Your task to perform on an android device: manage bookmarks in the chrome app Image 0: 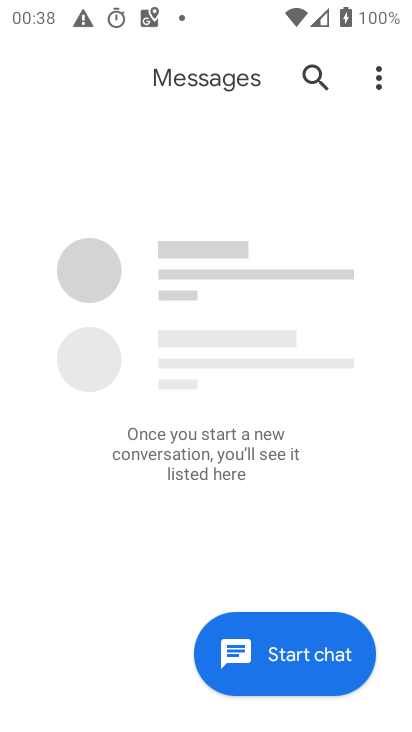
Step 0: press back button
Your task to perform on an android device: manage bookmarks in the chrome app Image 1: 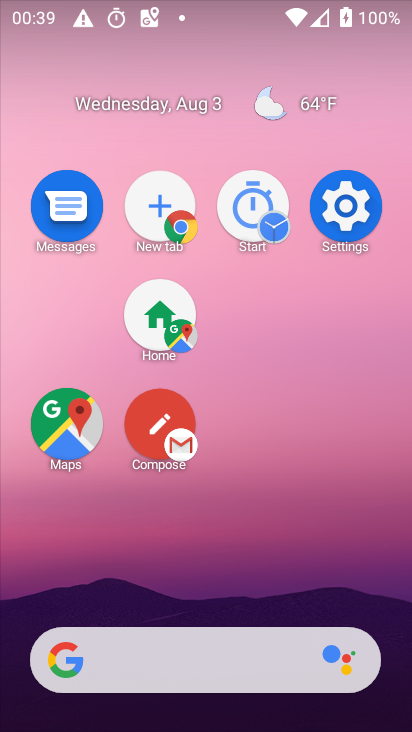
Step 1: drag from (270, 359) to (243, 217)
Your task to perform on an android device: manage bookmarks in the chrome app Image 2: 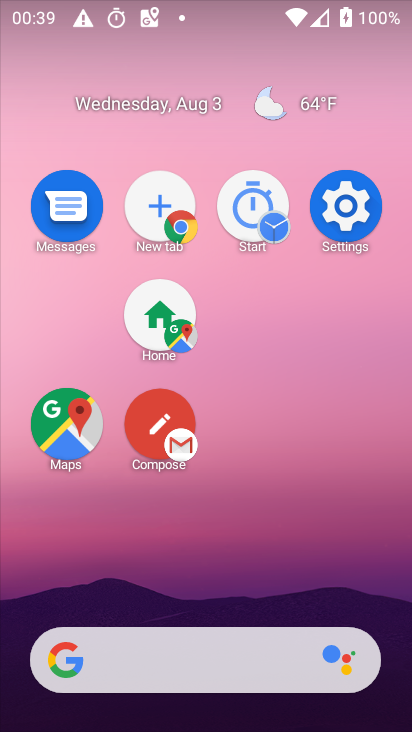
Step 2: drag from (328, 527) to (275, 382)
Your task to perform on an android device: manage bookmarks in the chrome app Image 3: 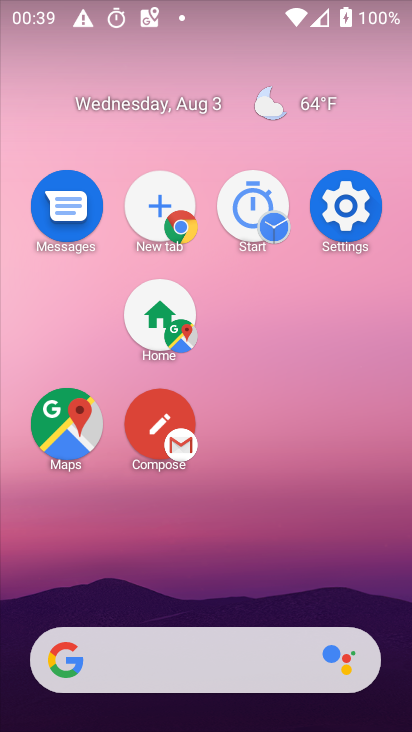
Step 3: drag from (209, 472) to (185, 271)
Your task to perform on an android device: manage bookmarks in the chrome app Image 4: 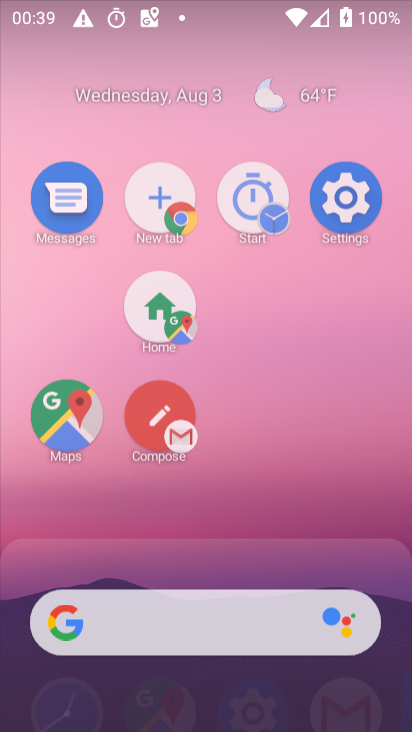
Step 4: drag from (298, 495) to (230, 156)
Your task to perform on an android device: manage bookmarks in the chrome app Image 5: 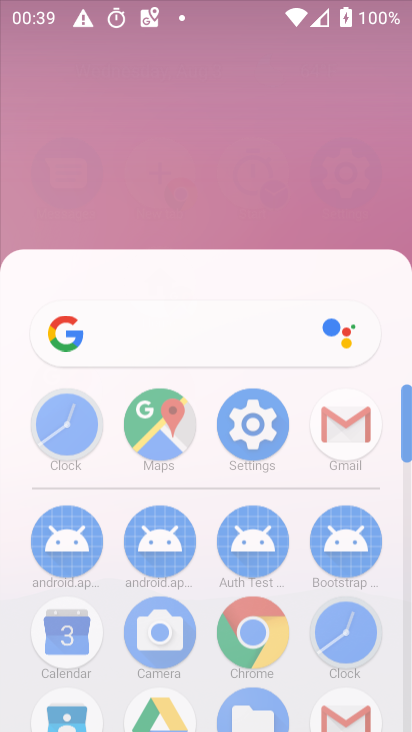
Step 5: drag from (338, 450) to (291, 160)
Your task to perform on an android device: manage bookmarks in the chrome app Image 6: 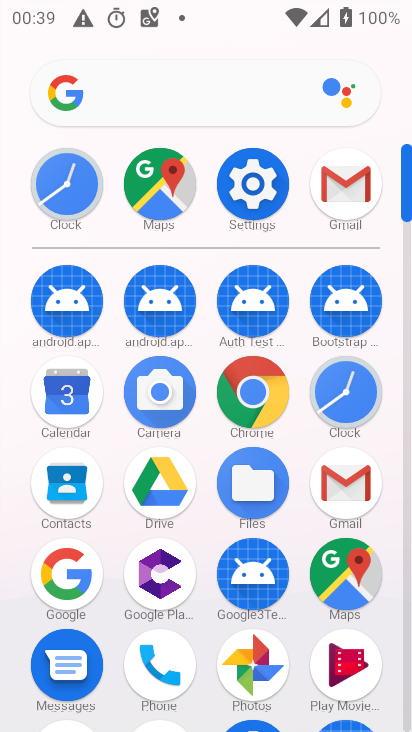
Step 6: click (248, 382)
Your task to perform on an android device: manage bookmarks in the chrome app Image 7: 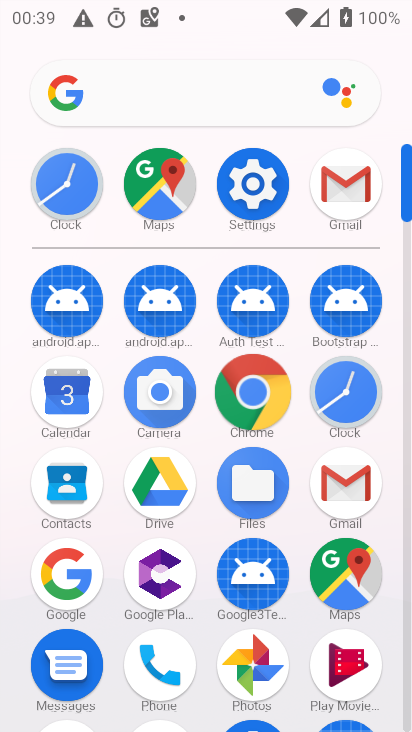
Step 7: click (276, 411)
Your task to perform on an android device: manage bookmarks in the chrome app Image 8: 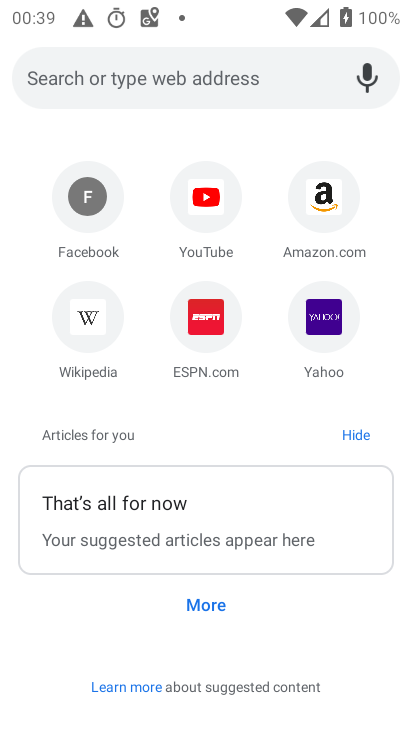
Step 8: drag from (339, 78) to (317, 309)
Your task to perform on an android device: manage bookmarks in the chrome app Image 9: 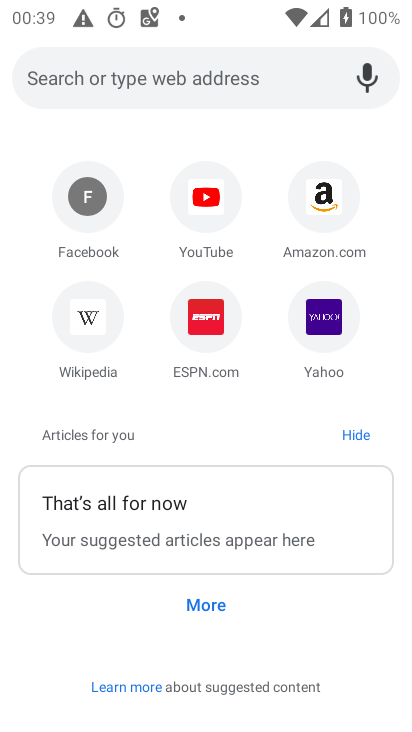
Step 9: click (286, 84)
Your task to perform on an android device: manage bookmarks in the chrome app Image 10: 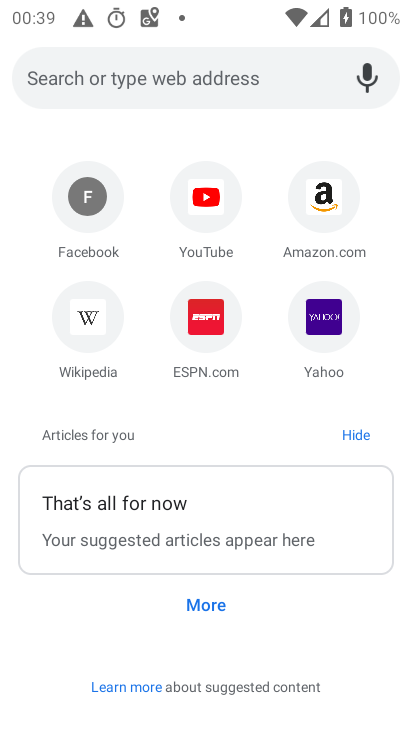
Step 10: click (285, 90)
Your task to perform on an android device: manage bookmarks in the chrome app Image 11: 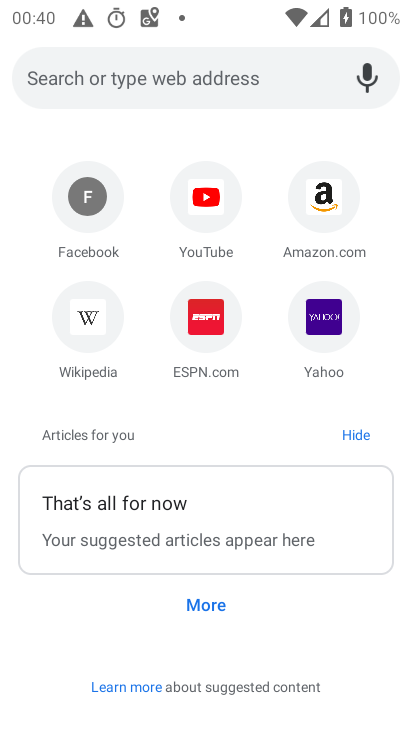
Step 11: press back button
Your task to perform on an android device: manage bookmarks in the chrome app Image 12: 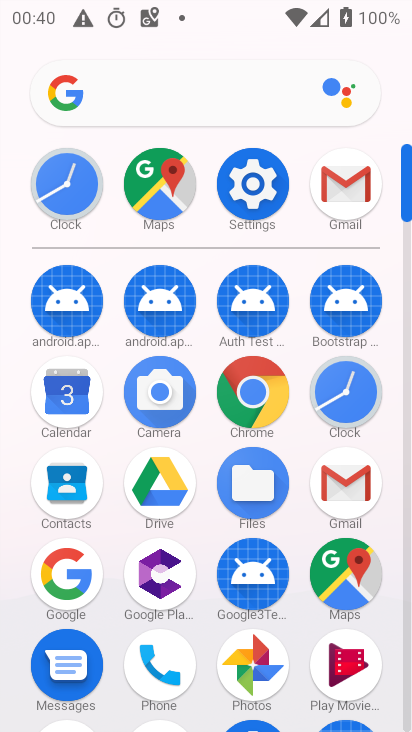
Step 12: click (267, 399)
Your task to perform on an android device: manage bookmarks in the chrome app Image 13: 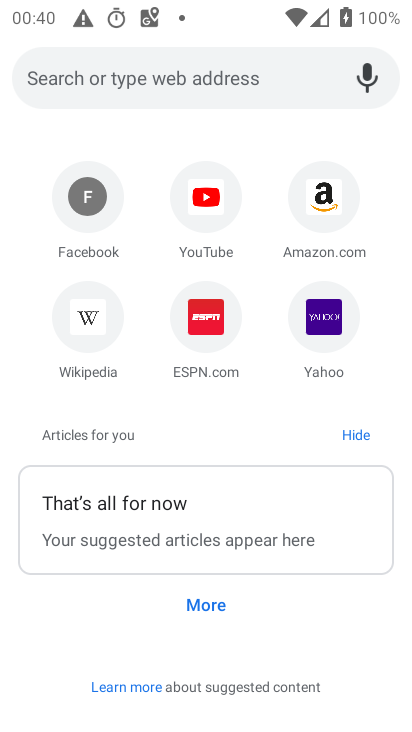
Step 13: press back button
Your task to perform on an android device: manage bookmarks in the chrome app Image 14: 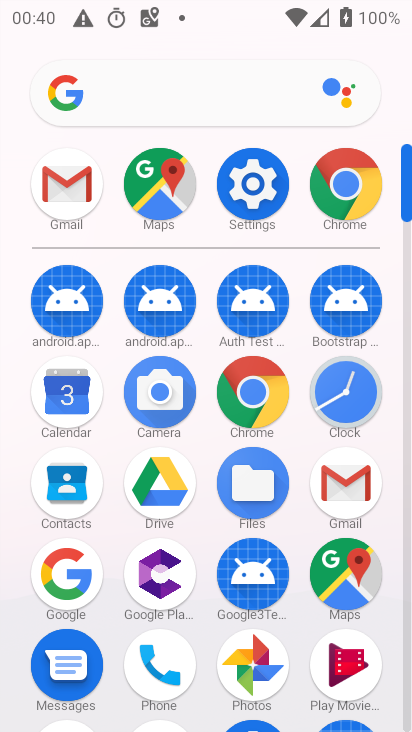
Step 14: click (356, 181)
Your task to perform on an android device: manage bookmarks in the chrome app Image 15: 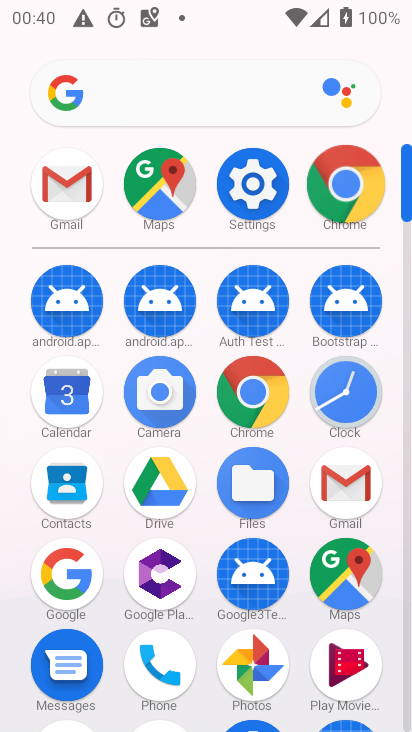
Step 15: click (365, 216)
Your task to perform on an android device: manage bookmarks in the chrome app Image 16: 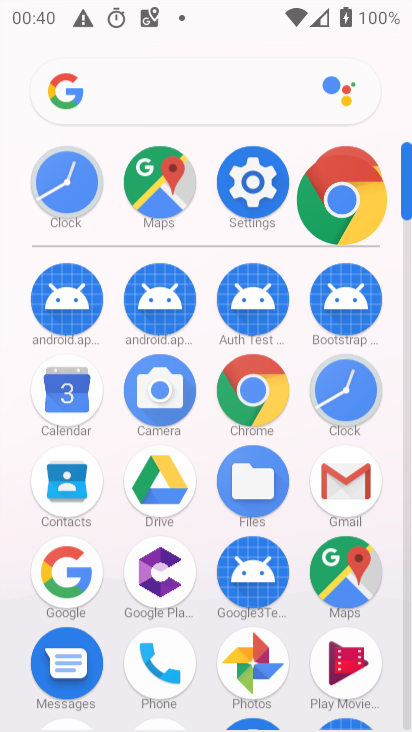
Step 16: click (373, 231)
Your task to perform on an android device: manage bookmarks in the chrome app Image 17: 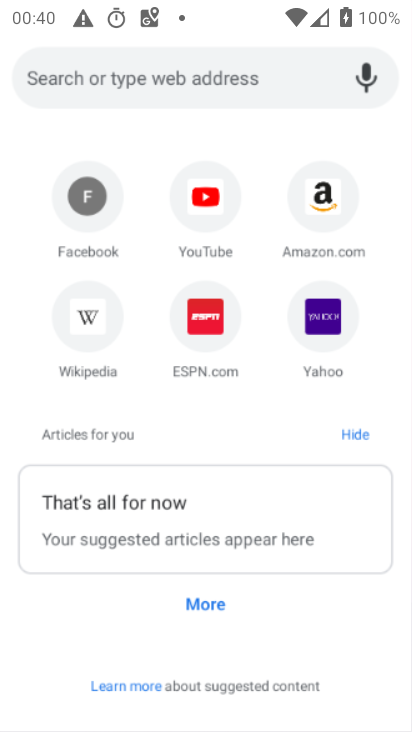
Step 17: click (387, 263)
Your task to perform on an android device: manage bookmarks in the chrome app Image 18: 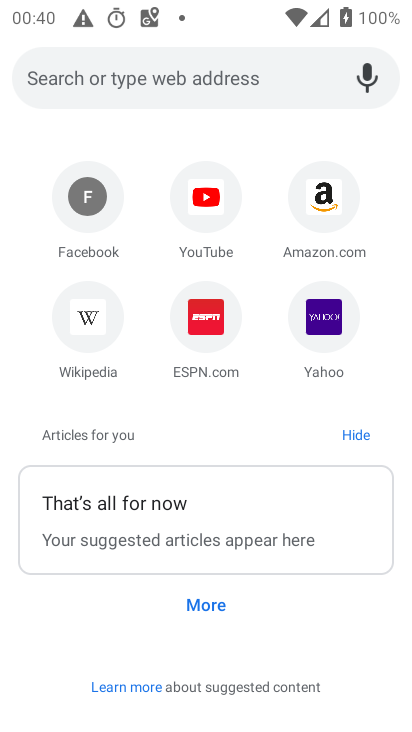
Step 18: click (303, 81)
Your task to perform on an android device: manage bookmarks in the chrome app Image 19: 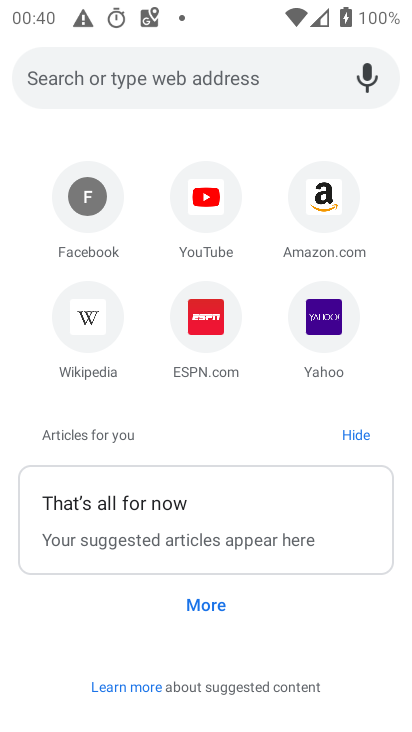
Step 19: task complete